Your task to perform on an android device: Go to sound settings Image 0: 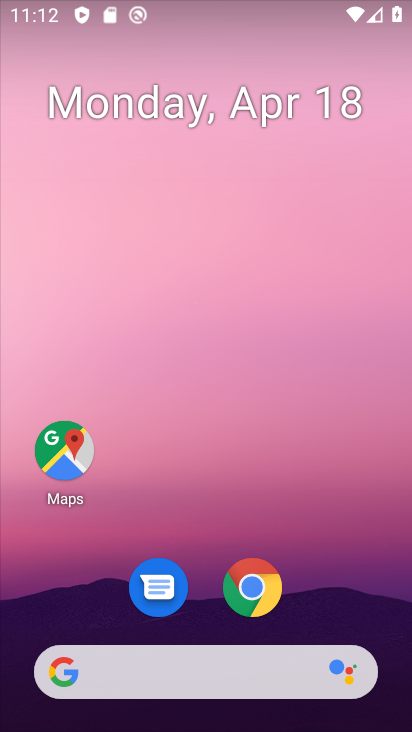
Step 0: drag from (344, 576) to (350, 91)
Your task to perform on an android device: Go to sound settings Image 1: 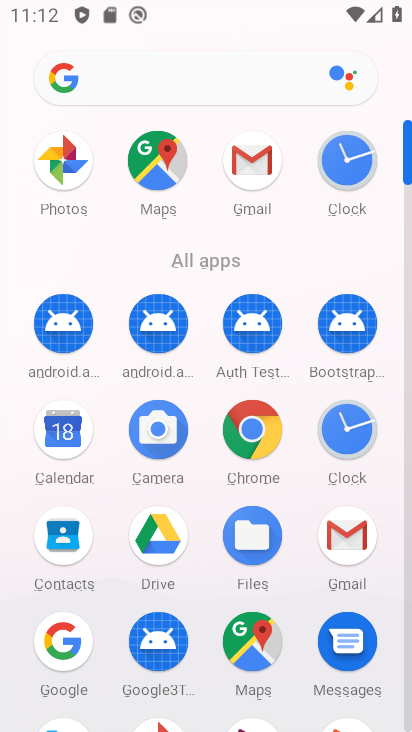
Step 1: drag from (307, 267) to (308, 30)
Your task to perform on an android device: Go to sound settings Image 2: 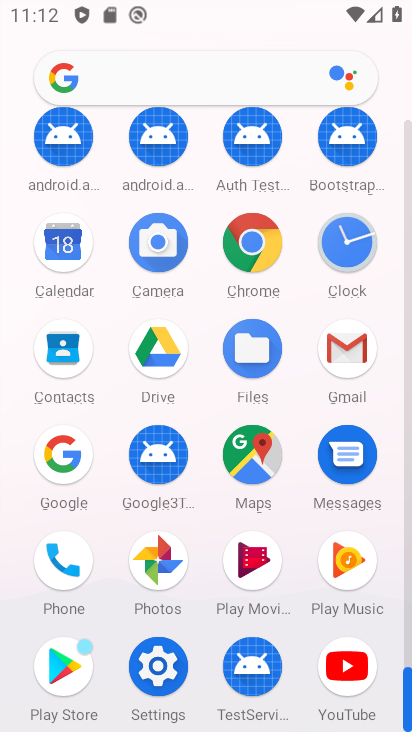
Step 2: click (165, 677)
Your task to perform on an android device: Go to sound settings Image 3: 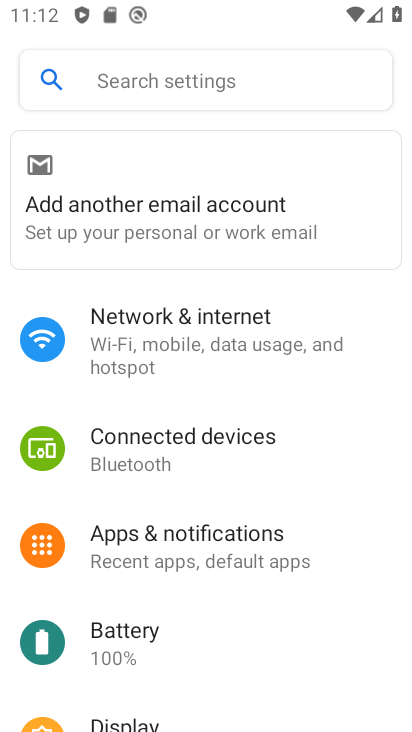
Step 3: drag from (353, 642) to (331, 180)
Your task to perform on an android device: Go to sound settings Image 4: 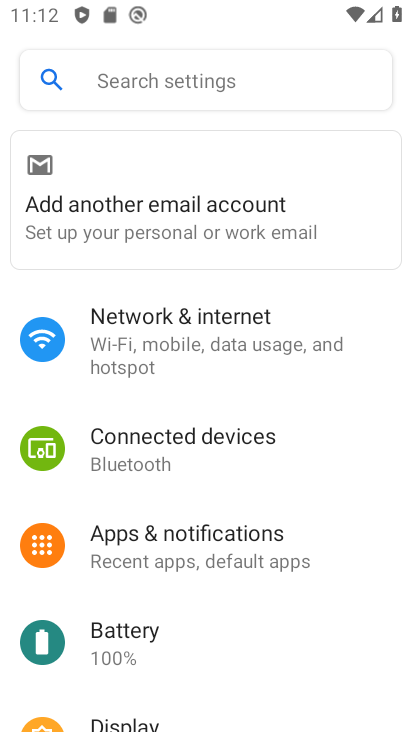
Step 4: drag from (314, 620) to (341, 153)
Your task to perform on an android device: Go to sound settings Image 5: 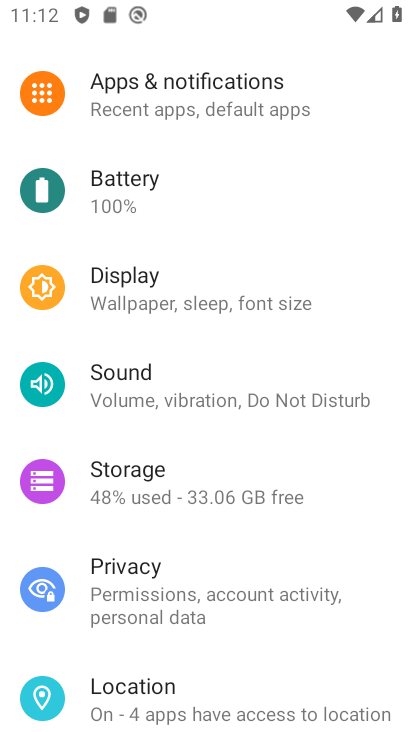
Step 5: click (130, 387)
Your task to perform on an android device: Go to sound settings Image 6: 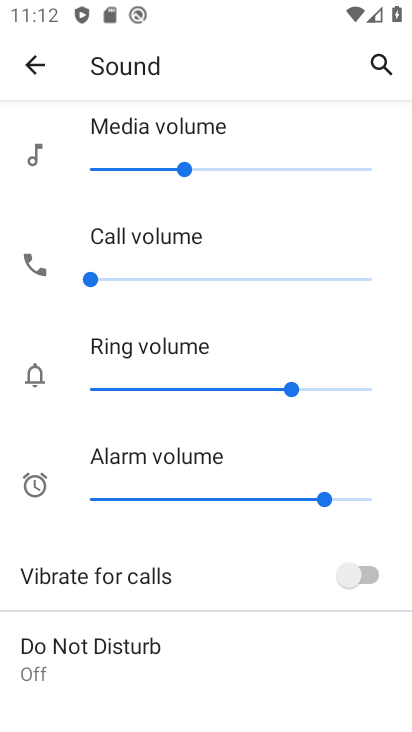
Step 6: task complete